Your task to perform on an android device: Search for vegetarian restaurants on Maps Image 0: 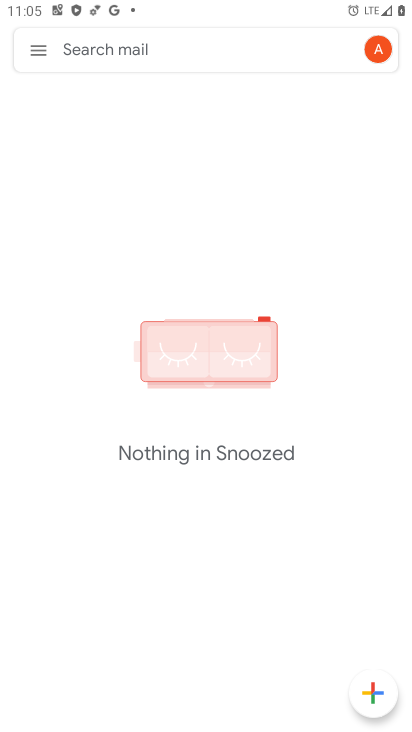
Step 0: press home button
Your task to perform on an android device: Search for vegetarian restaurants on Maps Image 1: 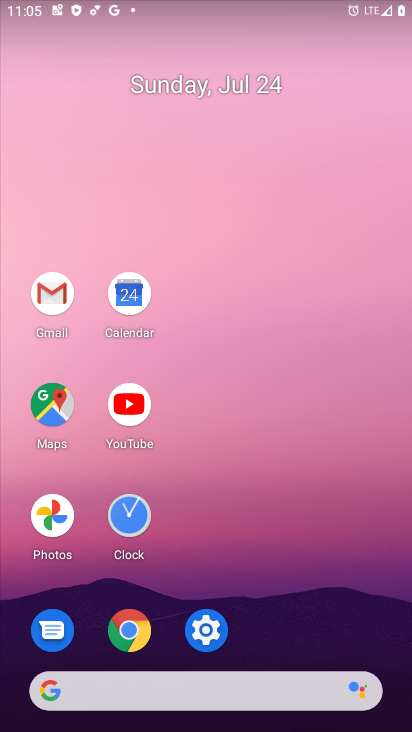
Step 1: click (54, 406)
Your task to perform on an android device: Search for vegetarian restaurants on Maps Image 2: 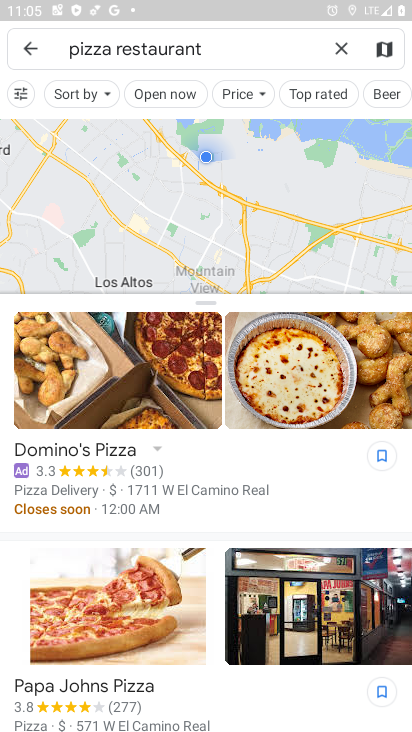
Step 2: click (342, 47)
Your task to perform on an android device: Search for vegetarian restaurants on Maps Image 3: 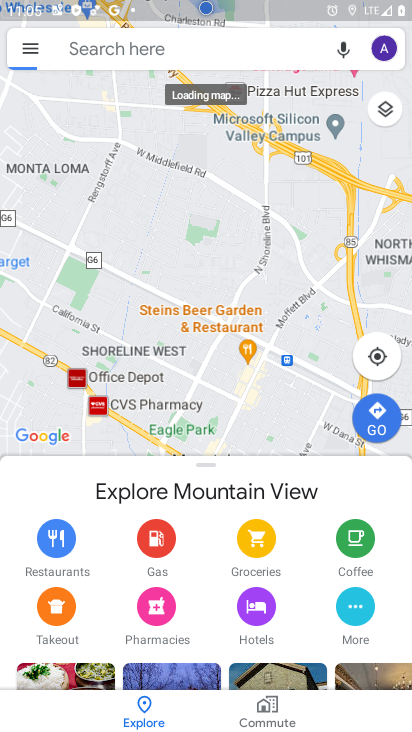
Step 3: click (168, 43)
Your task to perform on an android device: Search for vegetarian restaurants on Maps Image 4: 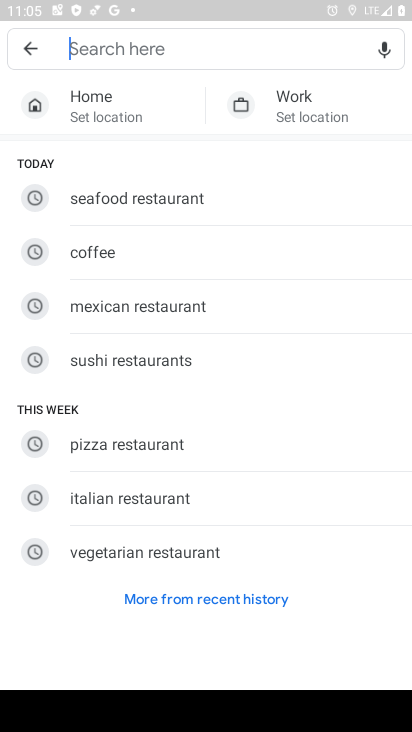
Step 4: click (111, 554)
Your task to perform on an android device: Search for vegetarian restaurants on Maps Image 5: 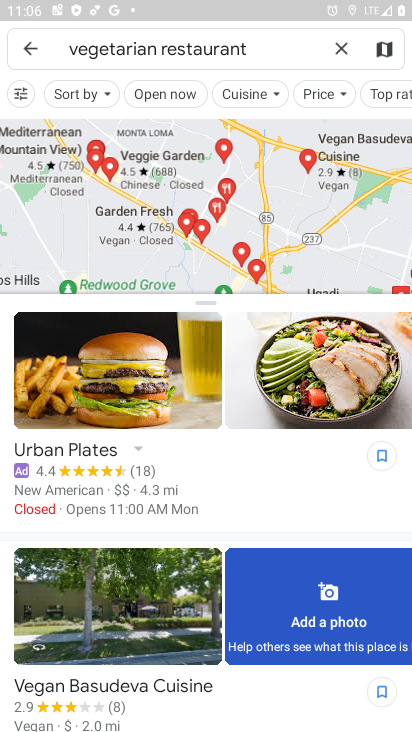
Step 5: task complete